Your task to perform on an android device: Go to Google Image 0: 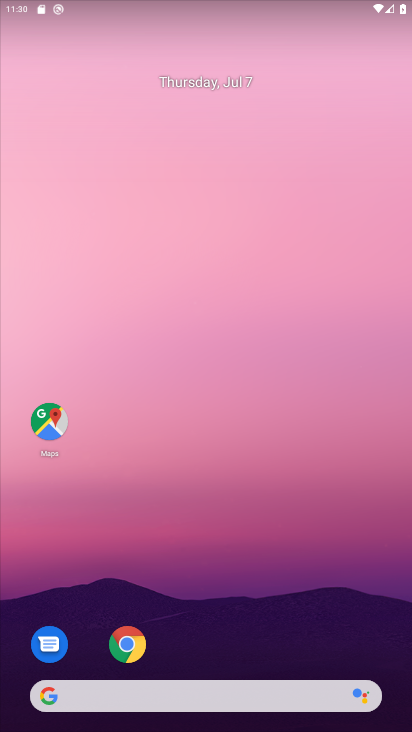
Step 0: click (85, 694)
Your task to perform on an android device: Go to Google Image 1: 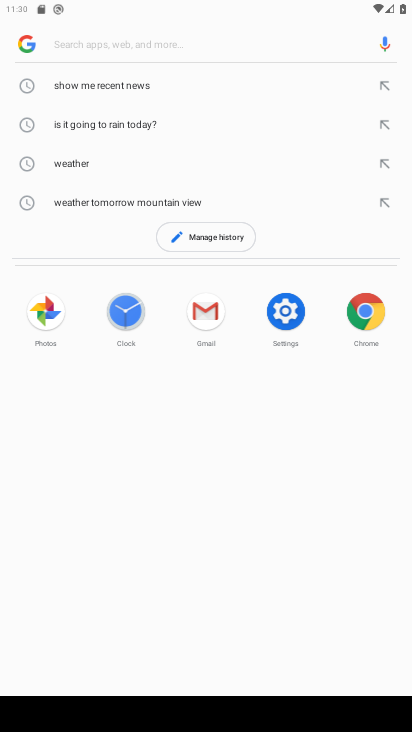
Step 1: task complete